Your task to perform on an android device: What is the capital of China? Image 0: 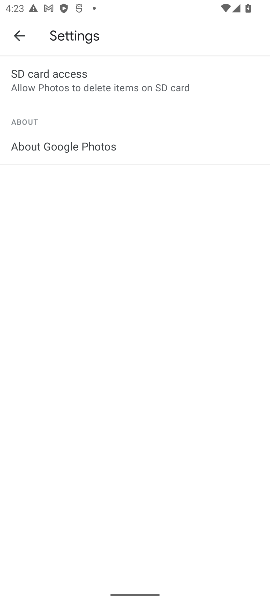
Step 0: press home button
Your task to perform on an android device: What is the capital of China? Image 1: 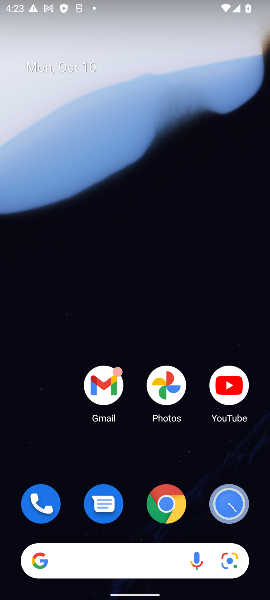
Step 1: drag from (188, 462) to (171, 1)
Your task to perform on an android device: What is the capital of China? Image 2: 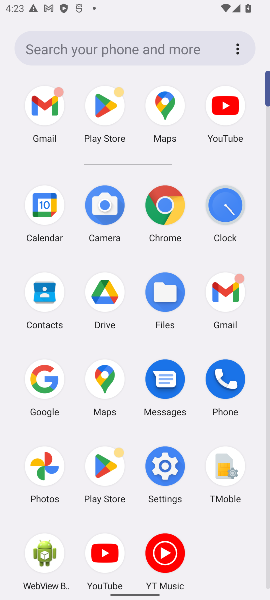
Step 2: click (172, 190)
Your task to perform on an android device: What is the capital of China? Image 3: 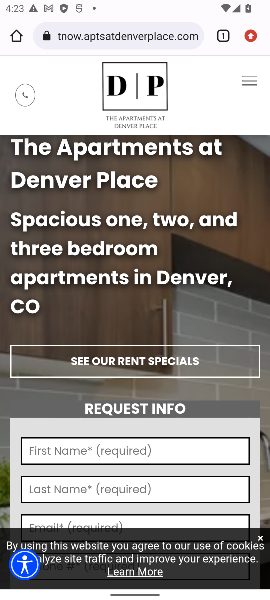
Step 3: click (139, 36)
Your task to perform on an android device: What is the capital of China? Image 4: 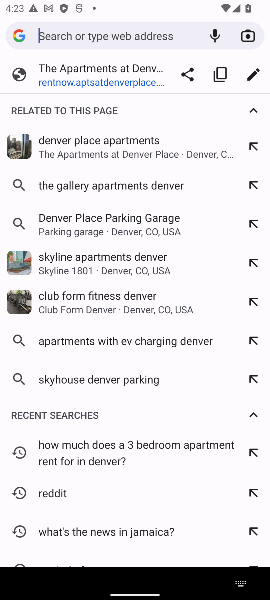
Step 4: type "What is the capital of China?"
Your task to perform on an android device: What is the capital of China? Image 5: 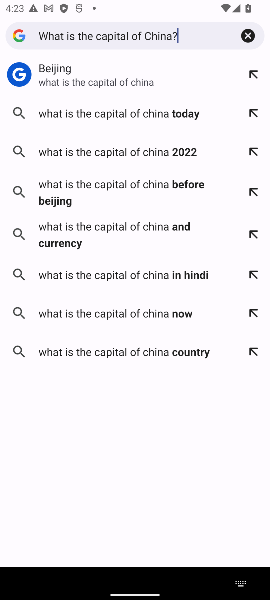
Step 5: press enter
Your task to perform on an android device: What is the capital of China? Image 6: 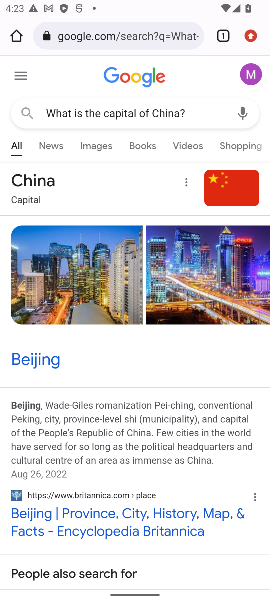
Step 6: click (134, 33)
Your task to perform on an android device: What is the capital of China? Image 7: 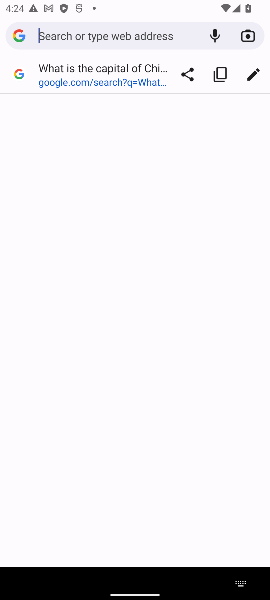
Step 7: type "What is the capital of China?"
Your task to perform on an android device: What is the capital of China? Image 8: 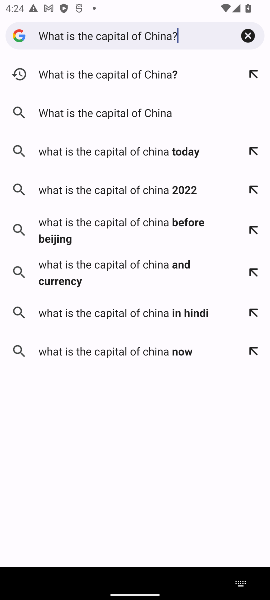
Step 8: press enter
Your task to perform on an android device: What is the capital of China? Image 9: 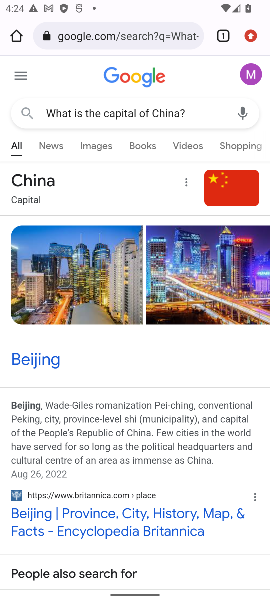
Step 9: task complete